Your task to perform on an android device: find snoozed emails in the gmail app Image 0: 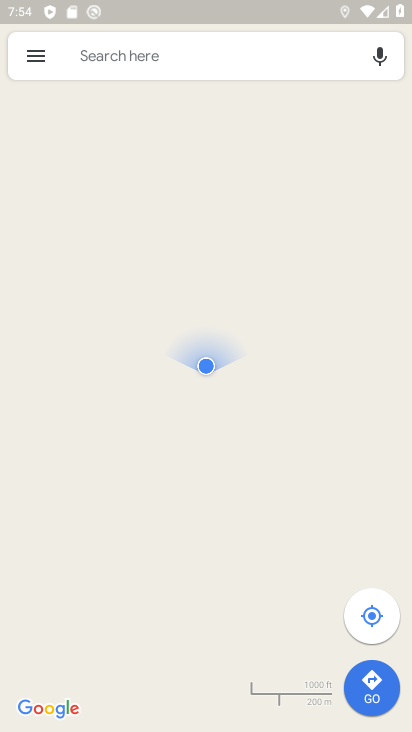
Step 0: press home button
Your task to perform on an android device: find snoozed emails in the gmail app Image 1: 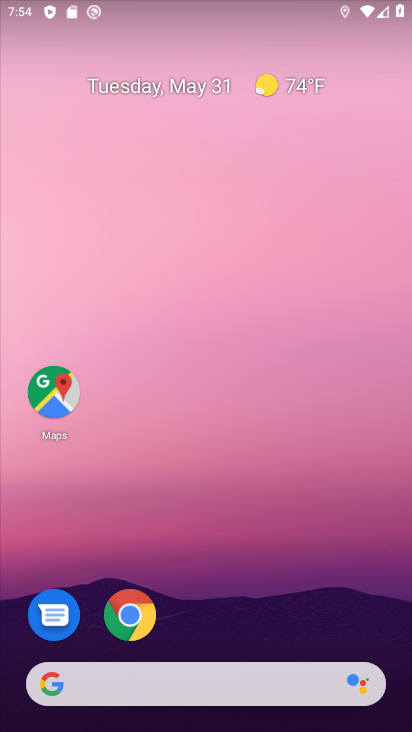
Step 1: drag from (214, 620) to (226, 182)
Your task to perform on an android device: find snoozed emails in the gmail app Image 2: 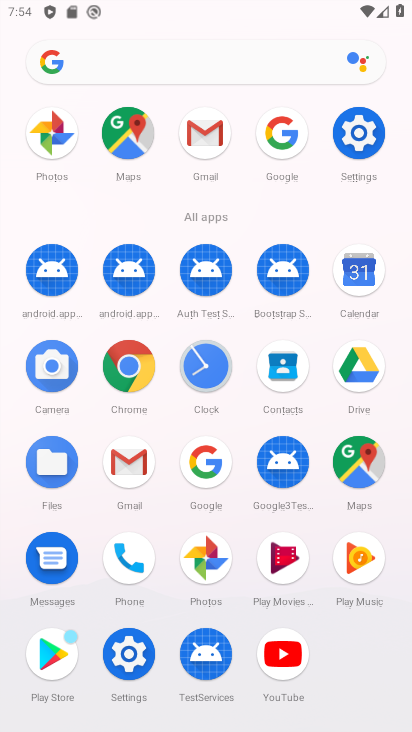
Step 2: click (207, 149)
Your task to perform on an android device: find snoozed emails in the gmail app Image 3: 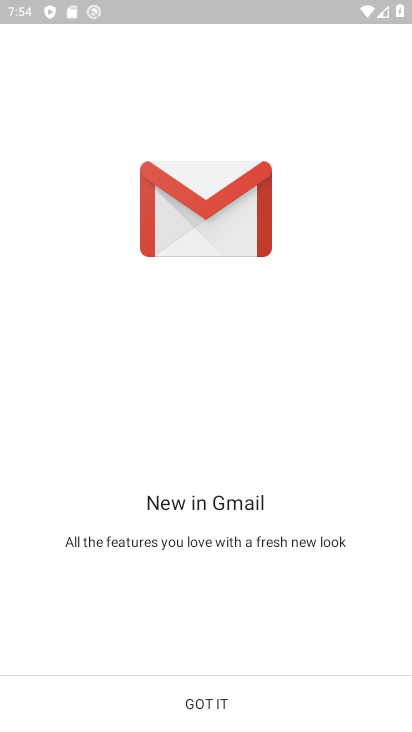
Step 3: click (195, 709)
Your task to perform on an android device: find snoozed emails in the gmail app Image 4: 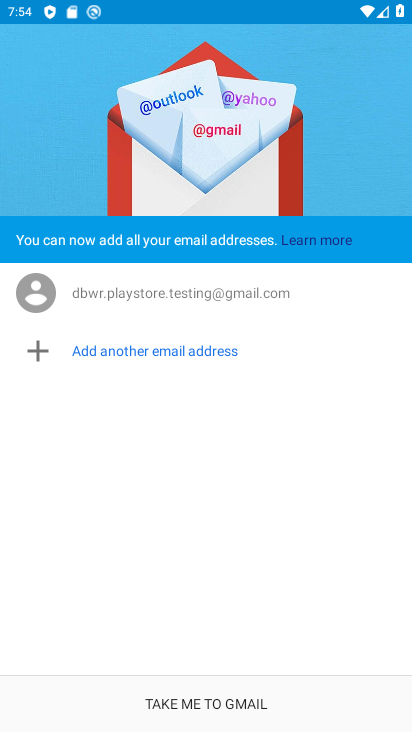
Step 4: click (195, 709)
Your task to perform on an android device: find snoozed emails in the gmail app Image 5: 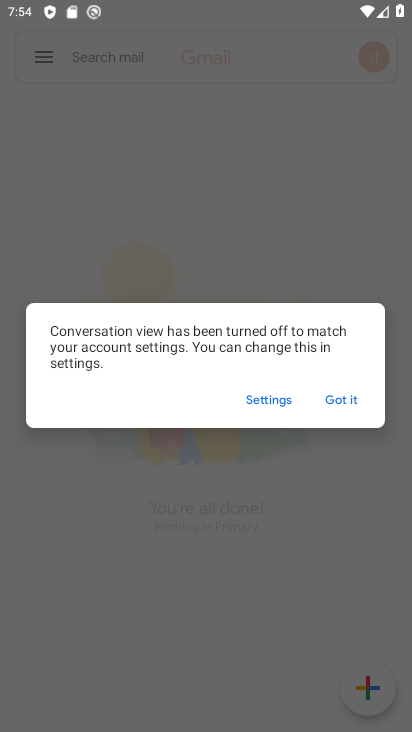
Step 5: click (328, 396)
Your task to perform on an android device: find snoozed emails in the gmail app Image 6: 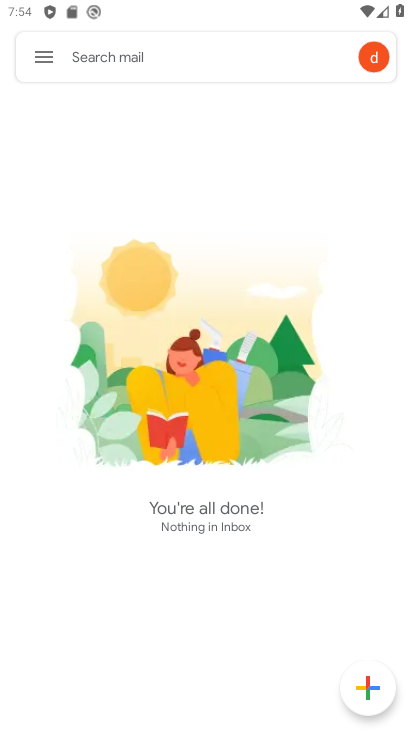
Step 6: click (49, 62)
Your task to perform on an android device: find snoozed emails in the gmail app Image 7: 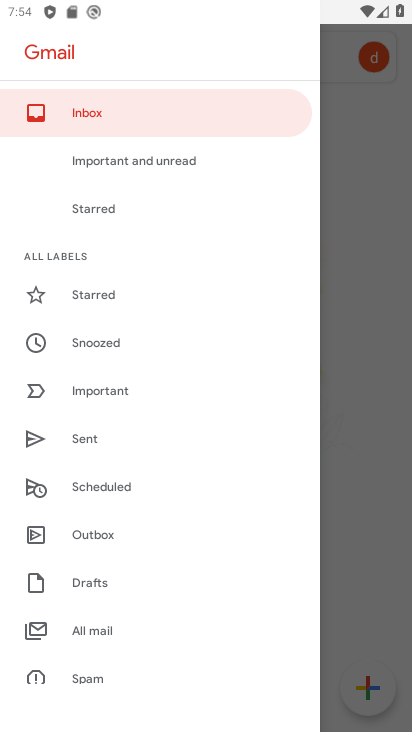
Step 7: click (164, 342)
Your task to perform on an android device: find snoozed emails in the gmail app Image 8: 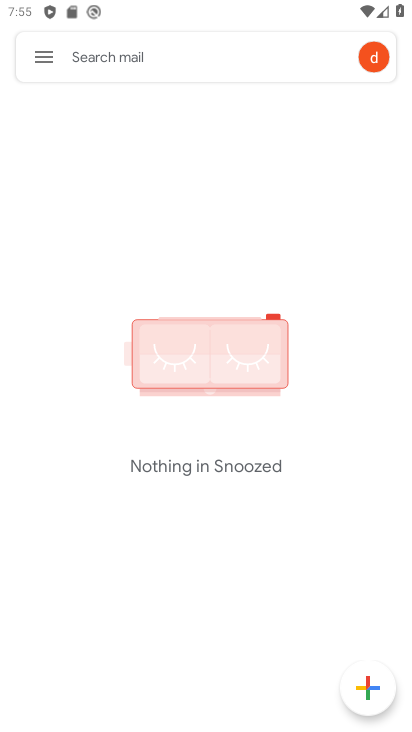
Step 8: task complete